Your task to perform on an android device: Open maps Image 0: 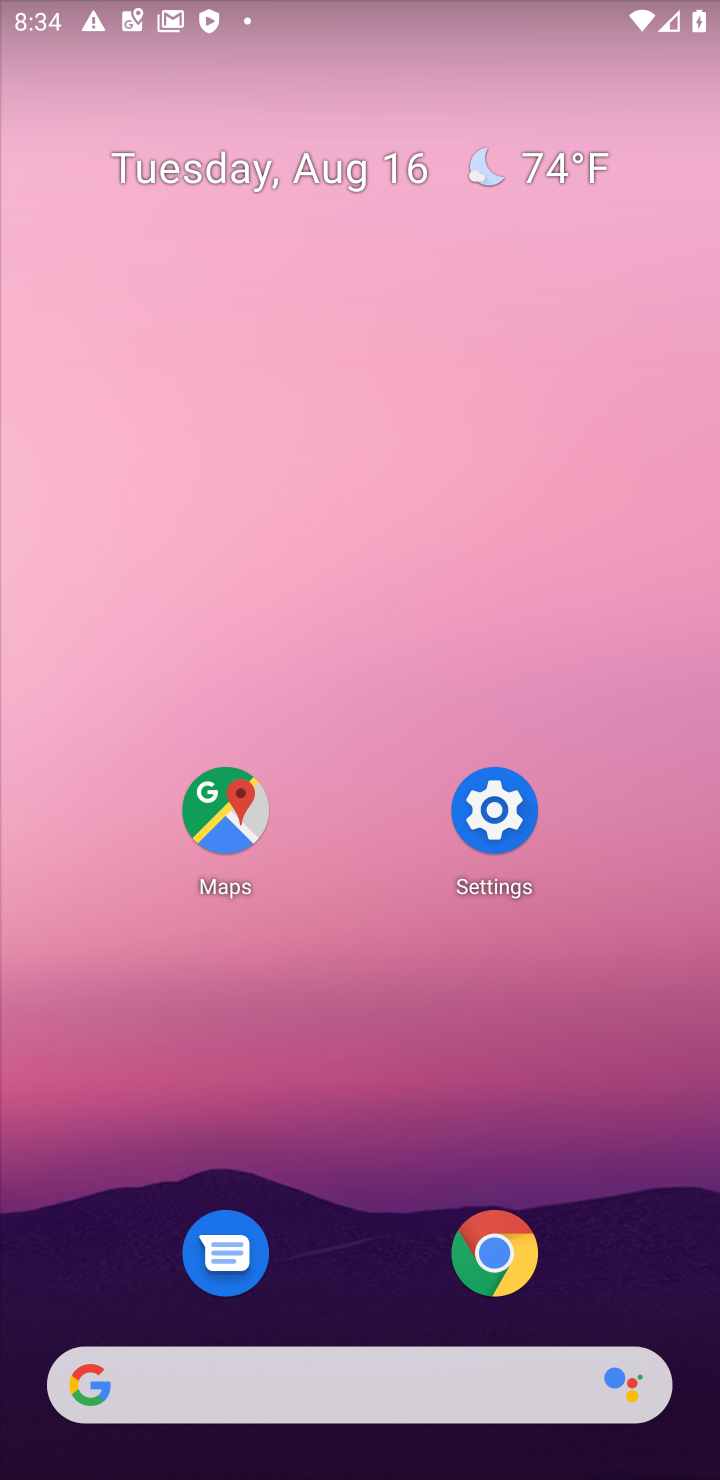
Step 0: click (219, 821)
Your task to perform on an android device: Open maps Image 1: 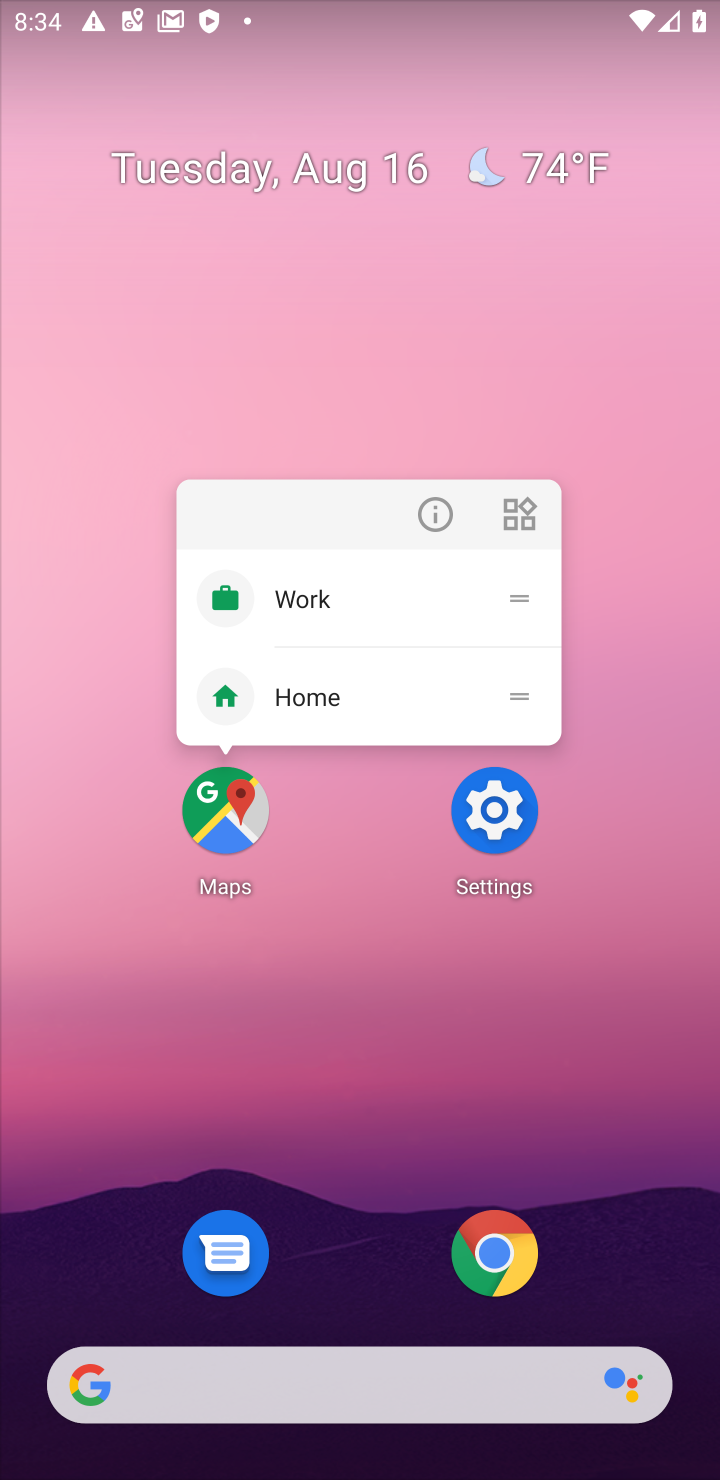
Step 1: click (219, 815)
Your task to perform on an android device: Open maps Image 2: 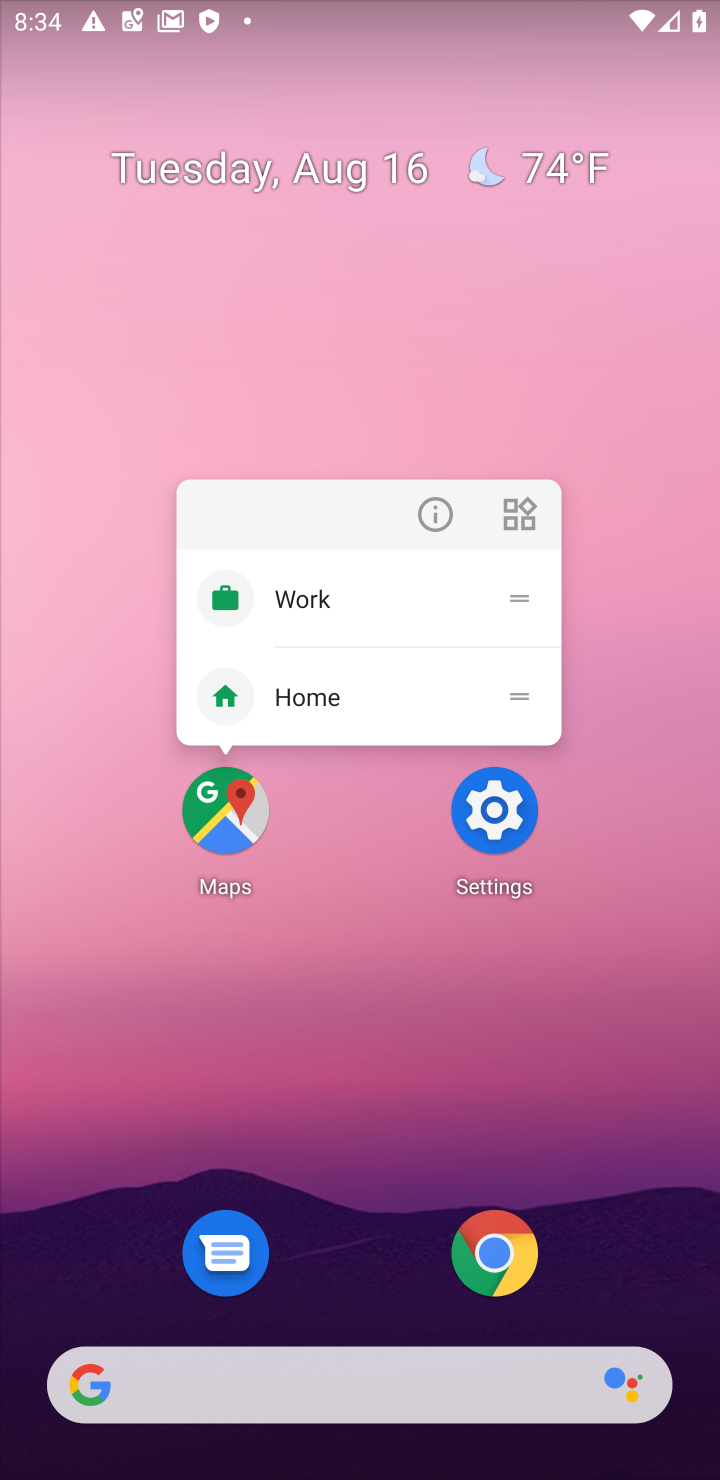
Step 2: click (232, 813)
Your task to perform on an android device: Open maps Image 3: 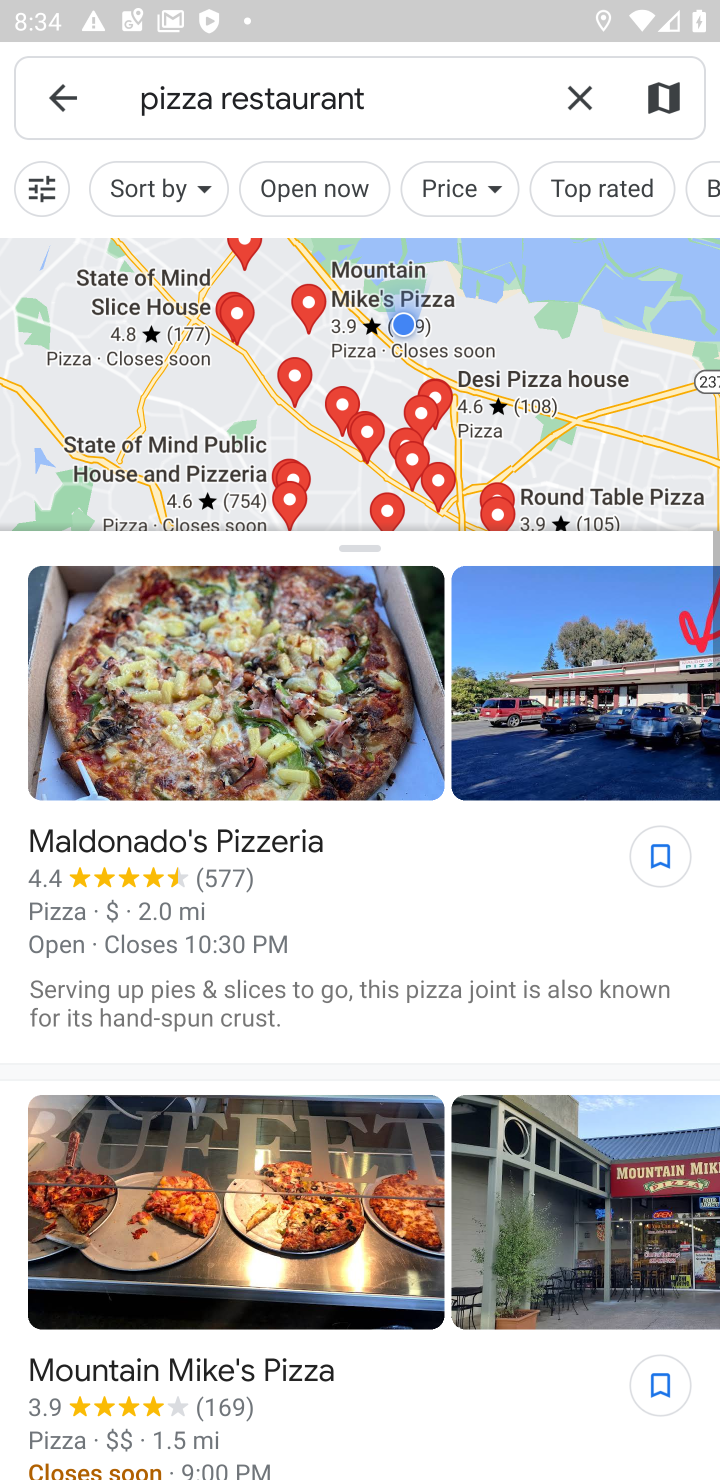
Step 3: click (577, 96)
Your task to perform on an android device: Open maps Image 4: 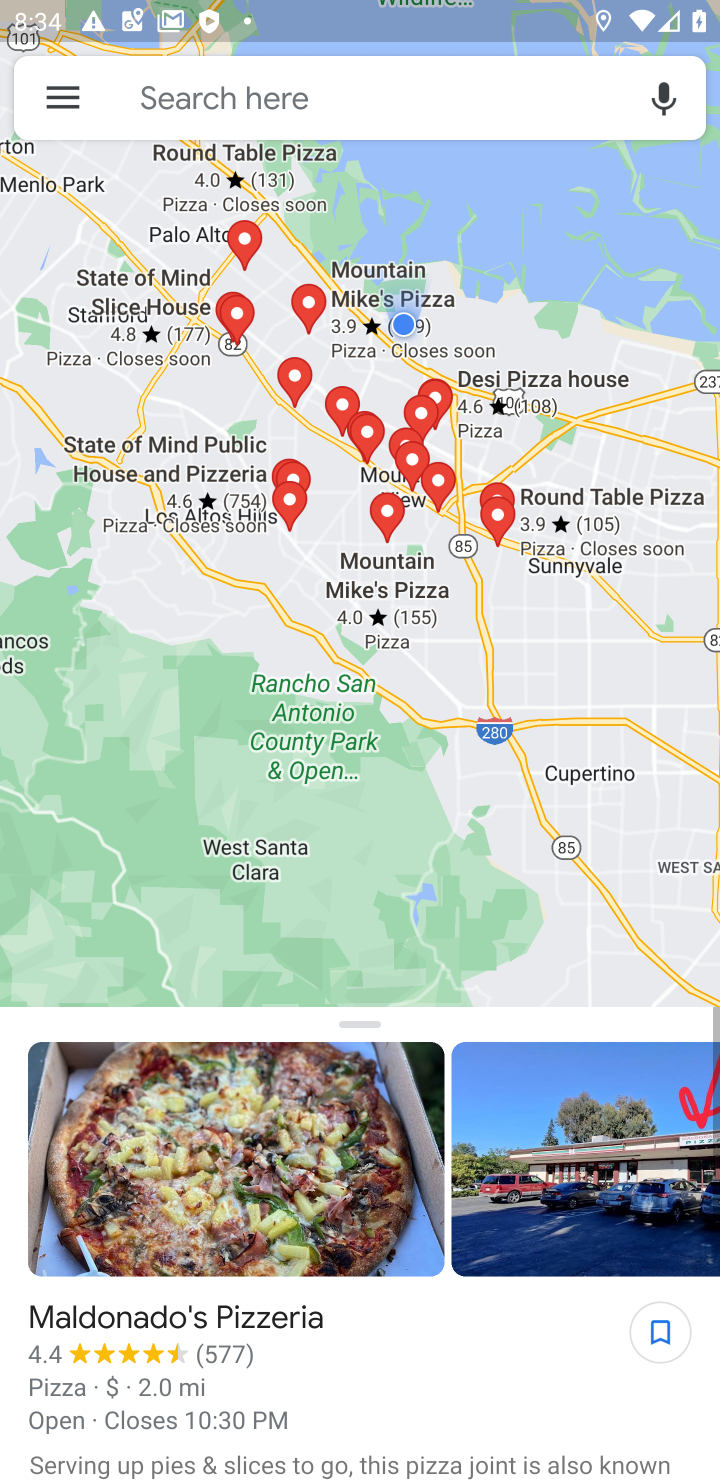
Step 4: press back button
Your task to perform on an android device: Open maps Image 5: 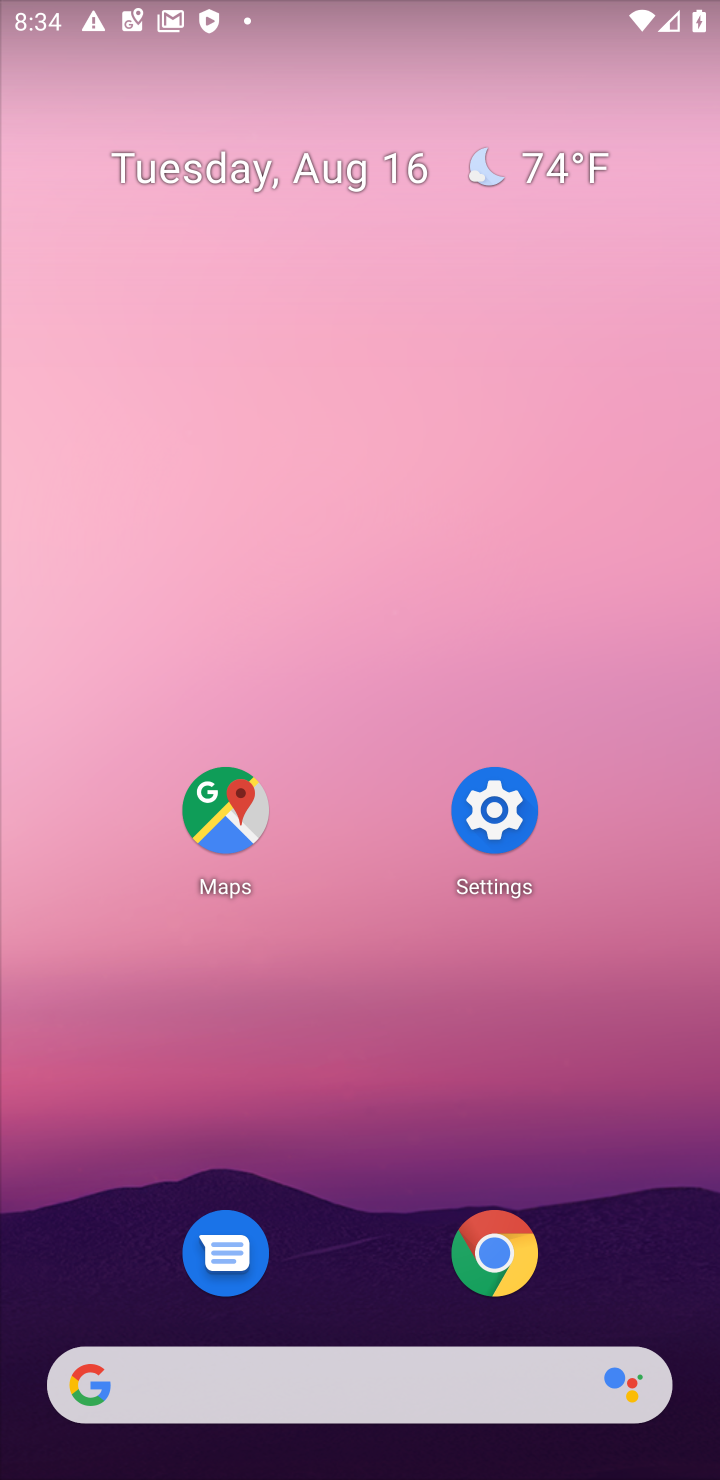
Step 5: click (239, 809)
Your task to perform on an android device: Open maps Image 6: 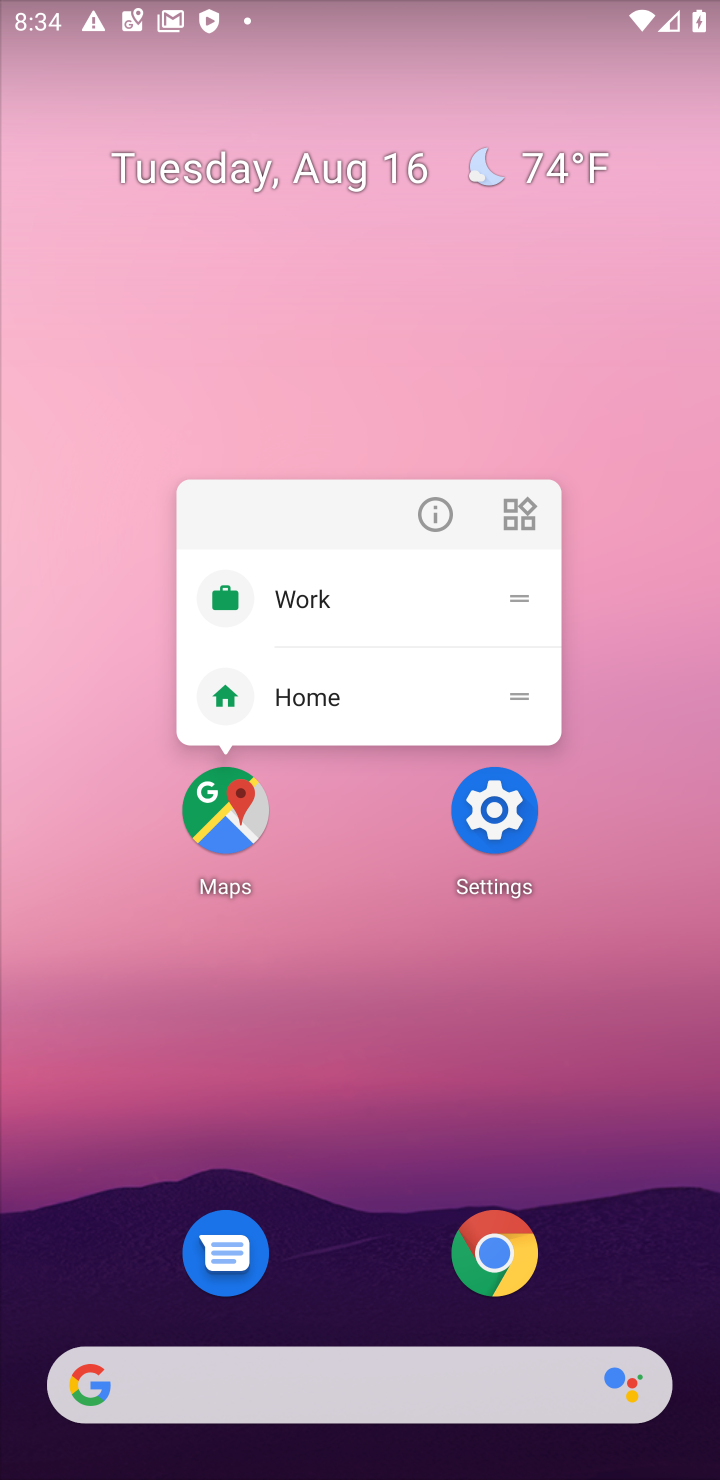
Step 6: click (220, 822)
Your task to perform on an android device: Open maps Image 7: 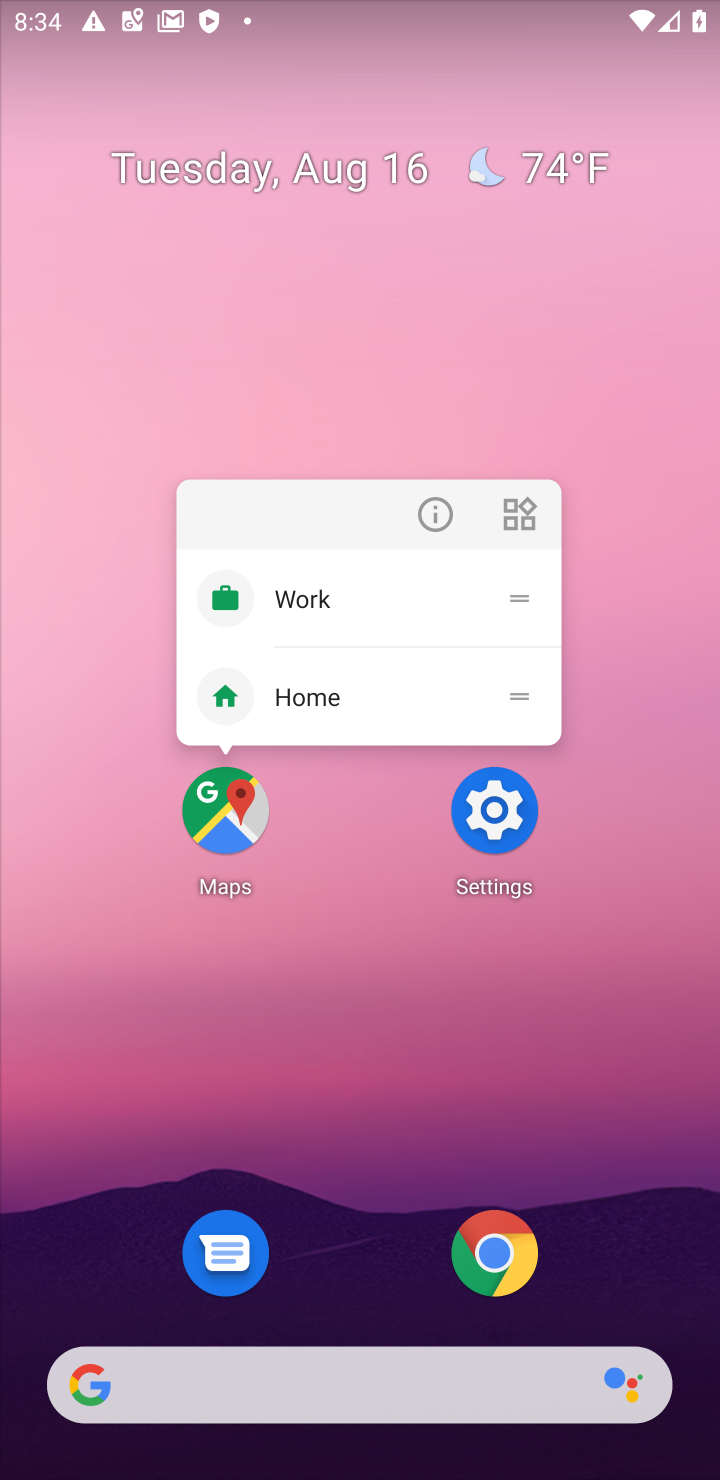
Step 7: click (220, 820)
Your task to perform on an android device: Open maps Image 8: 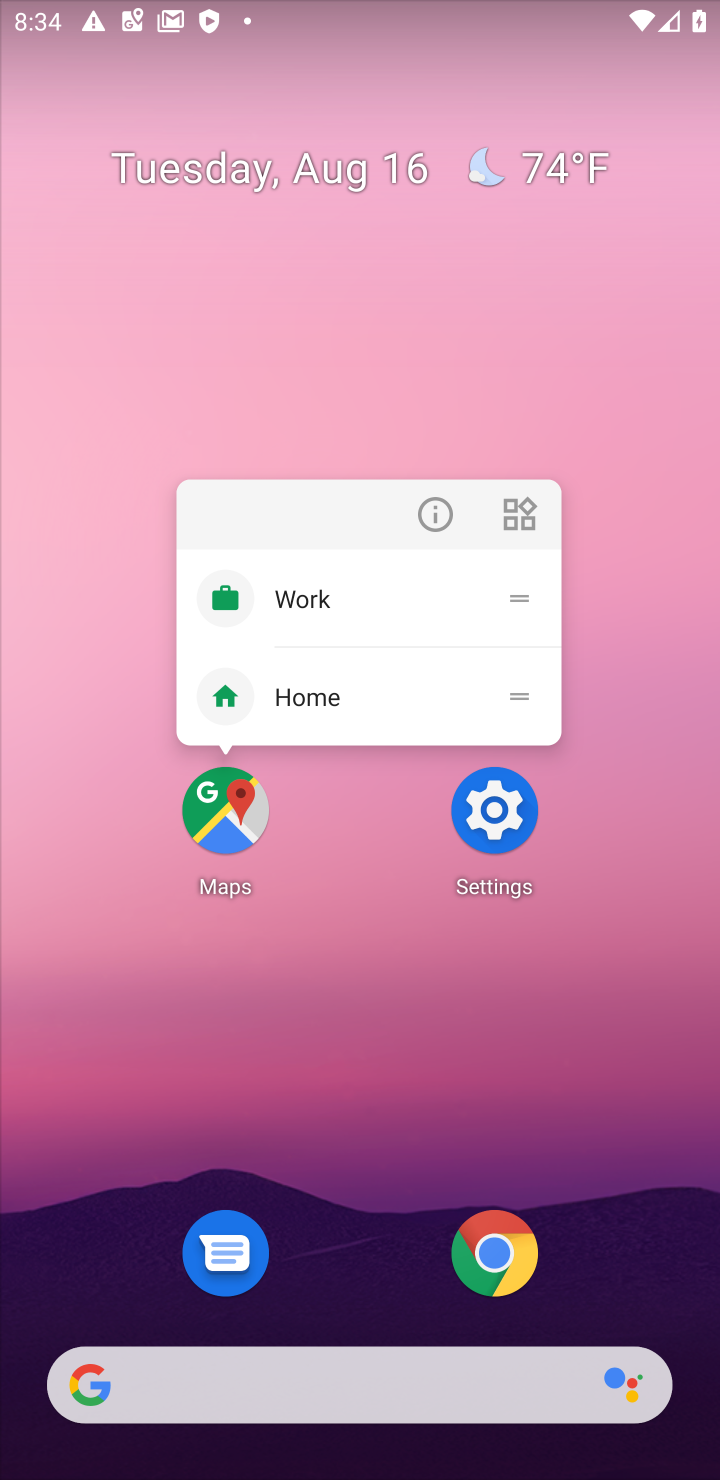
Step 8: click (220, 820)
Your task to perform on an android device: Open maps Image 9: 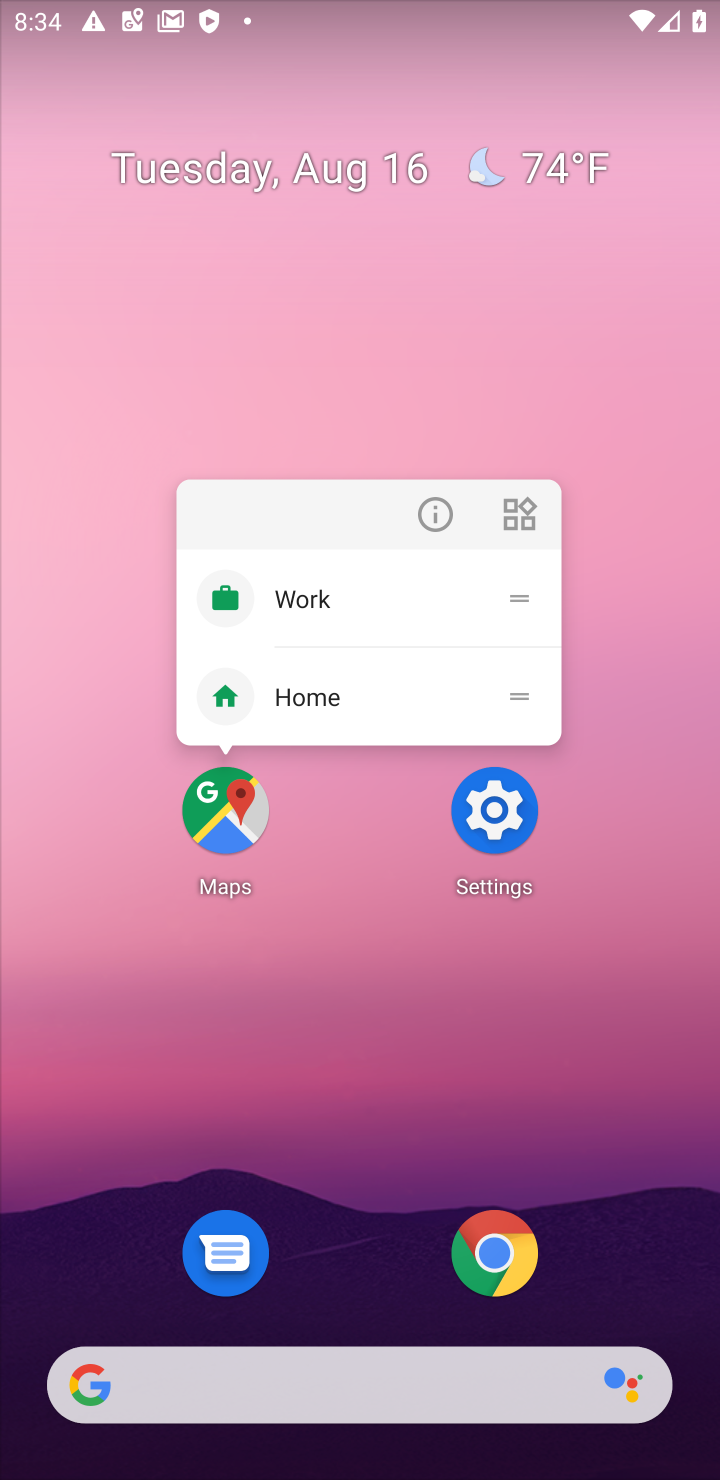
Step 9: click (235, 815)
Your task to perform on an android device: Open maps Image 10: 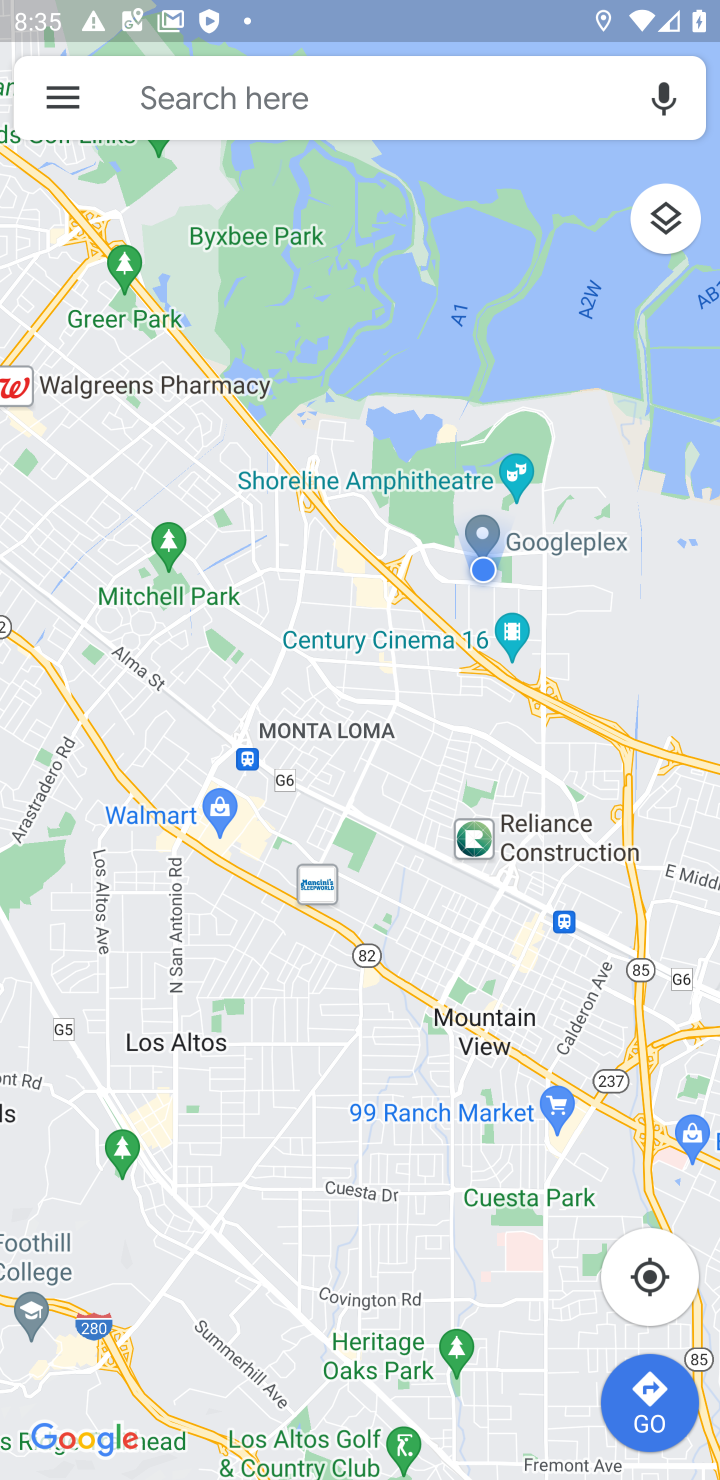
Step 10: task complete